Your task to perform on an android device: Open accessibility settings Image 0: 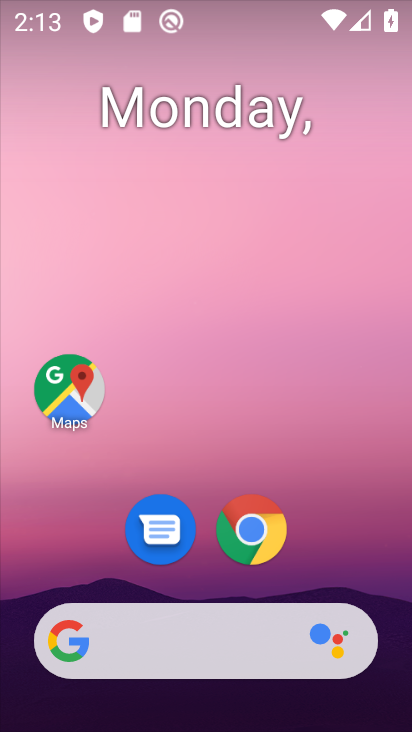
Step 0: drag from (358, 570) to (363, 204)
Your task to perform on an android device: Open accessibility settings Image 1: 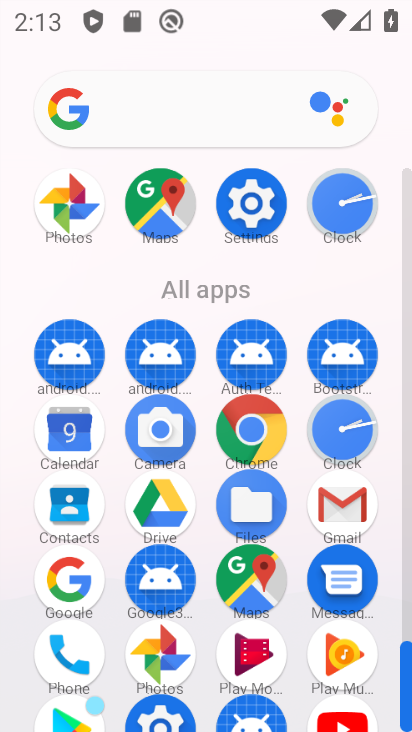
Step 1: drag from (306, 637) to (277, 358)
Your task to perform on an android device: Open accessibility settings Image 2: 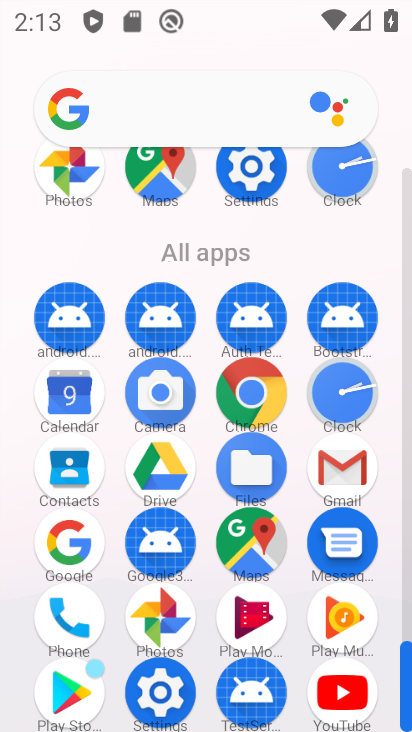
Step 2: click (153, 689)
Your task to perform on an android device: Open accessibility settings Image 3: 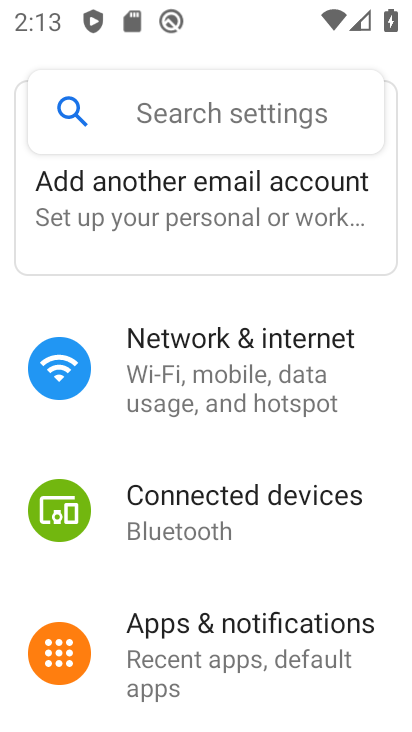
Step 3: drag from (288, 684) to (288, 416)
Your task to perform on an android device: Open accessibility settings Image 4: 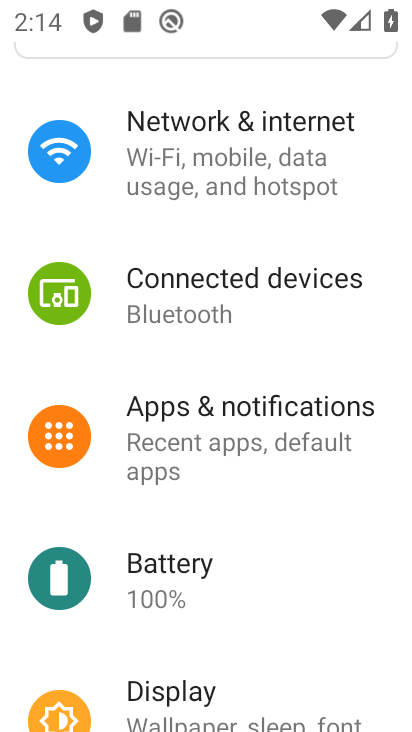
Step 4: drag from (299, 573) to (281, 264)
Your task to perform on an android device: Open accessibility settings Image 5: 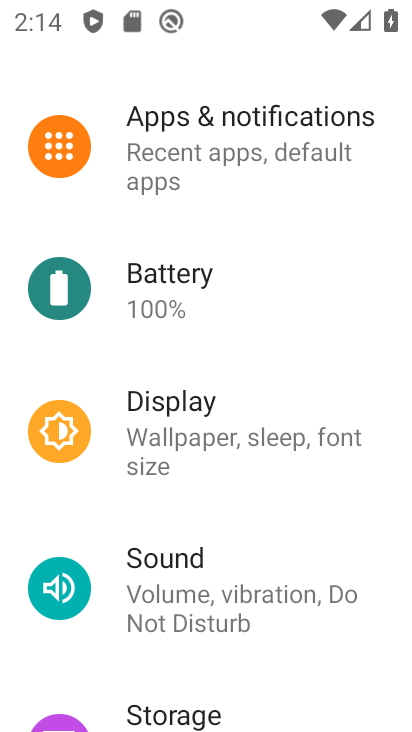
Step 5: drag from (255, 675) to (255, 306)
Your task to perform on an android device: Open accessibility settings Image 6: 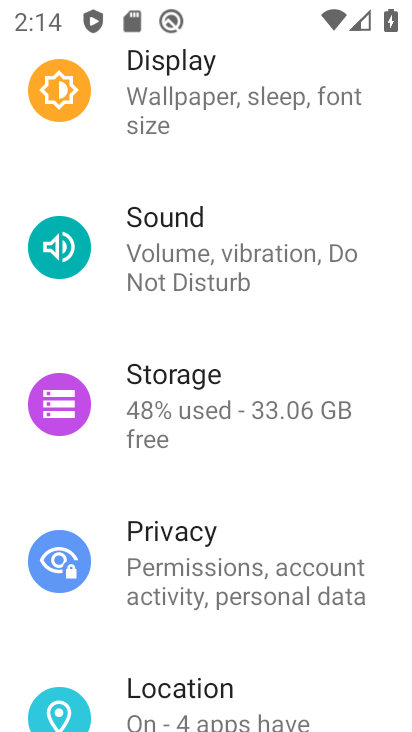
Step 6: drag from (272, 671) to (271, 346)
Your task to perform on an android device: Open accessibility settings Image 7: 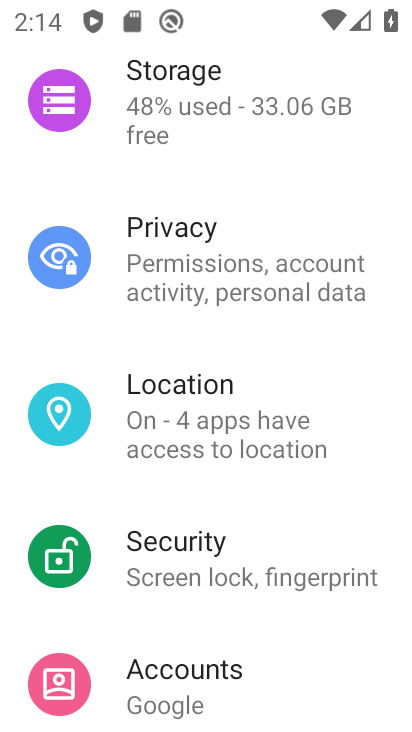
Step 7: drag from (271, 659) to (291, 319)
Your task to perform on an android device: Open accessibility settings Image 8: 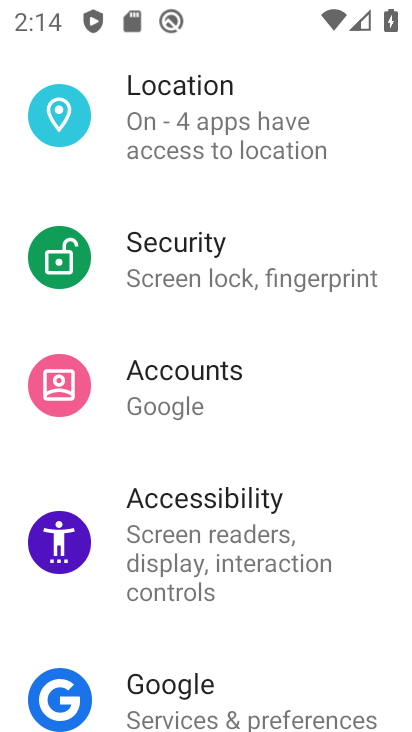
Step 8: click (241, 557)
Your task to perform on an android device: Open accessibility settings Image 9: 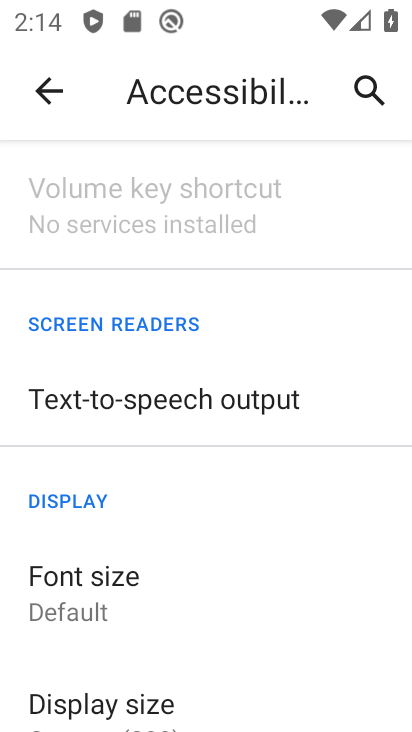
Step 9: task complete